Your task to perform on an android device: Go to Wikipedia Image 0: 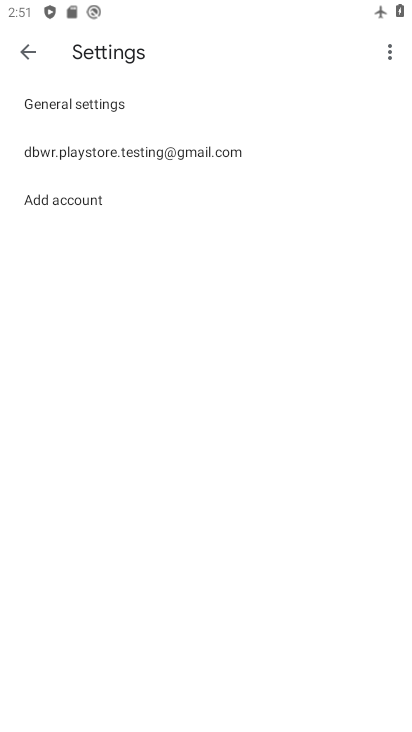
Step 0: press home button
Your task to perform on an android device: Go to Wikipedia Image 1: 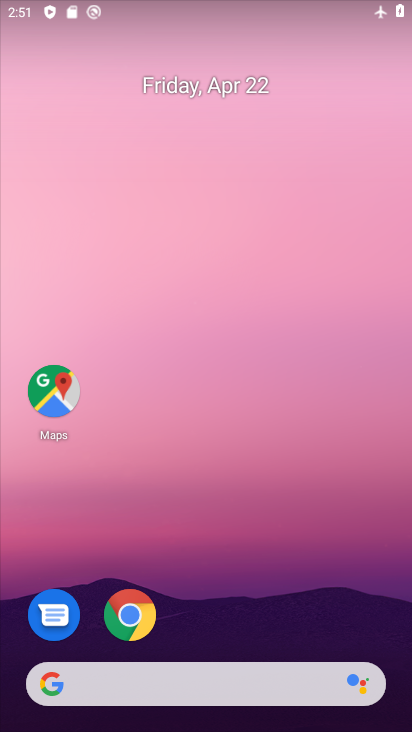
Step 1: click (134, 607)
Your task to perform on an android device: Go to Wikipedia Image 2: 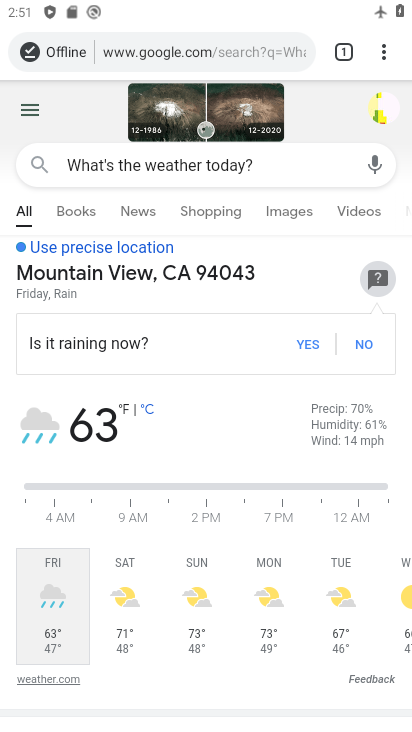
Step 2: drag from (396, 73) to (280, 166)
Your task to perform on an android device: Go to Wikipedia Image 3: 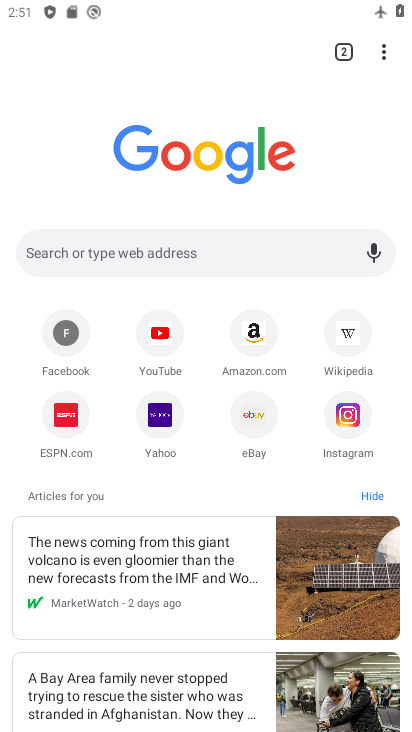
Step 3: click (330, 339)
Your task to perform on an android device: Go to Wikipedia Image 4: 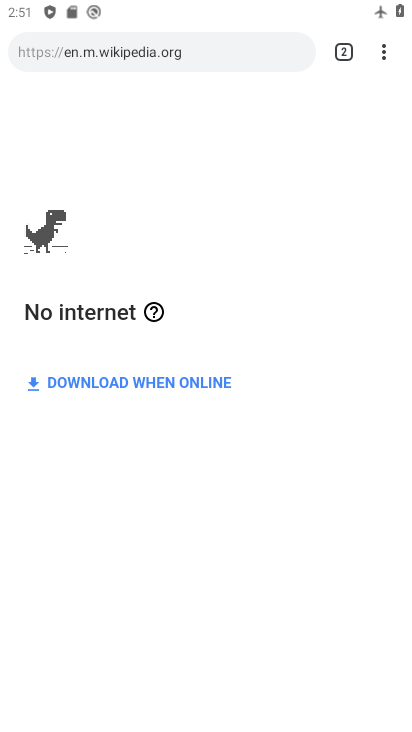
Step 4: task complete